Your task to perform on an android device: Open display settings Image 0: 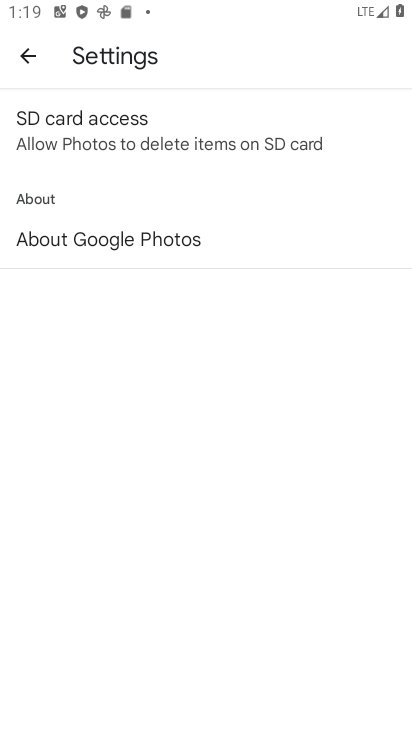
Step 0: press home button
Your task to perform on an android device: Open display settings Image 1: 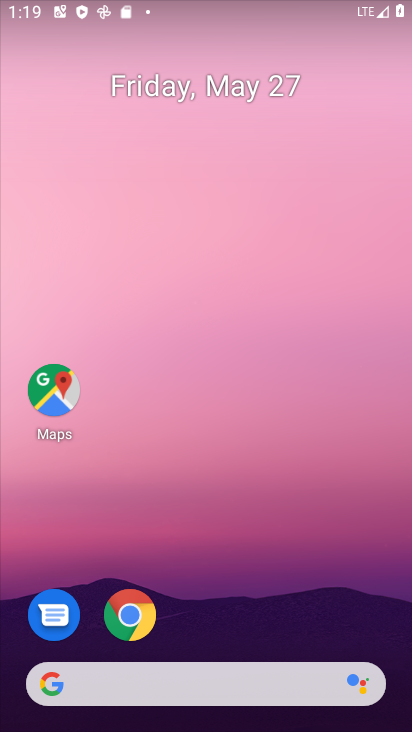
Step 1: drag from (276, 687) to (310, 74)
Your task to perform on an android device: Open display settings Image 2: 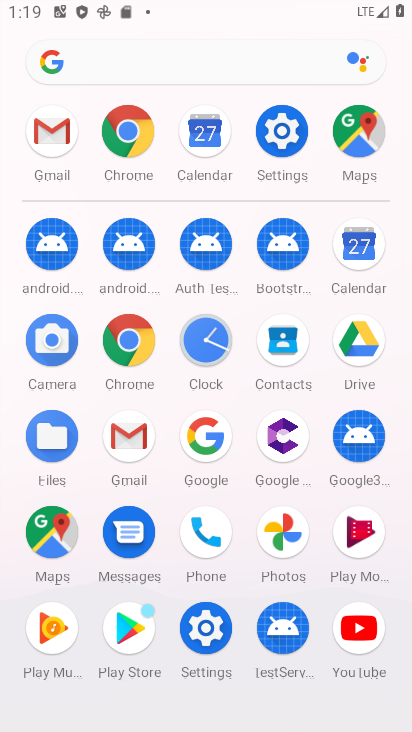
Step 2: click (296, 143)
Your task to perform on an android device: Open display settings Image 3: 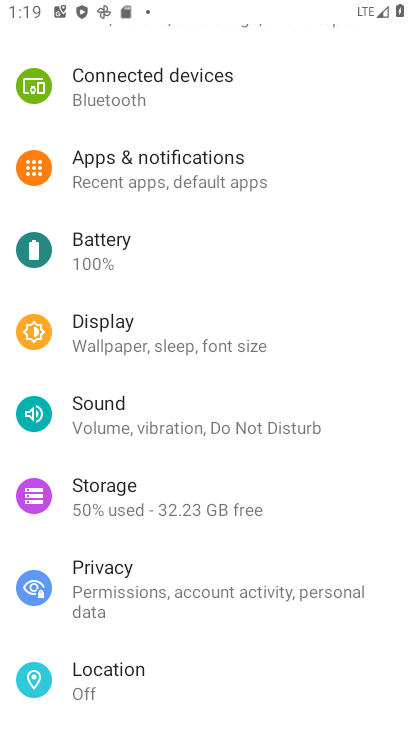
Step 3: click (197, 342)
Your task to perform on an android device: Open display settings Image 4: 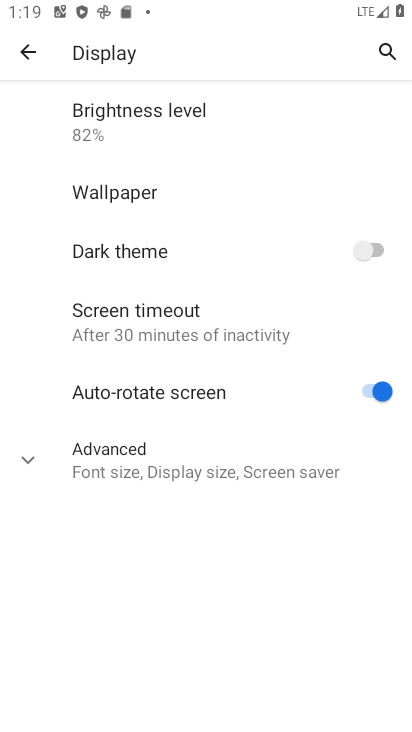
Step 4: task complete